Your task to perform on an android device: remove spam from my inbox in the gmail app Image 0: 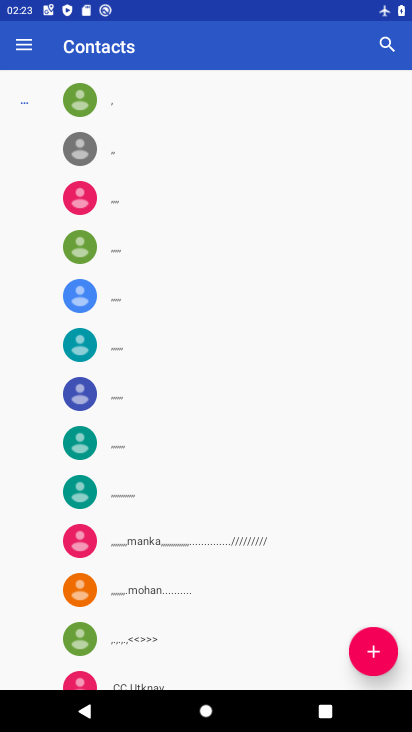
Step 0: press home button
Your task to perform on an android device: remove spam from my inbox in the gmail app Image 1: 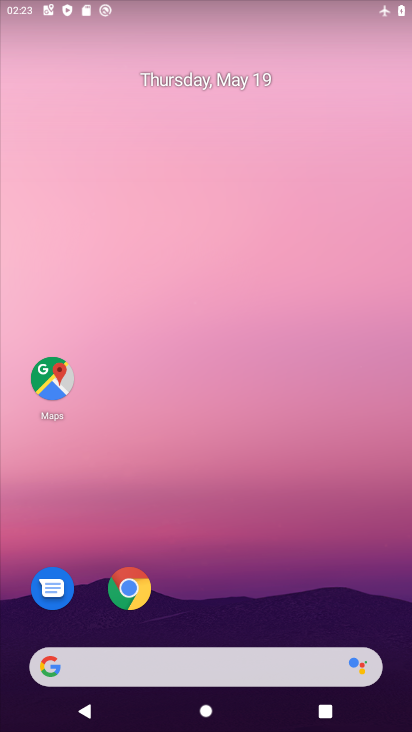
Step 1: drag from (221, 563) to (234, 106)
Your task to perform on an android device: remove spam from my inbox in the gmail app Image 2: 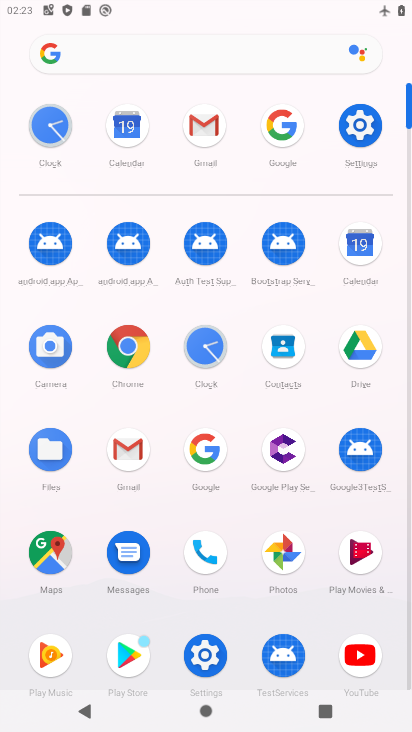
Step 2: click (205, 130)
Your task to perform on an android device: remove spam from my inbox in the gmail app Image 3: 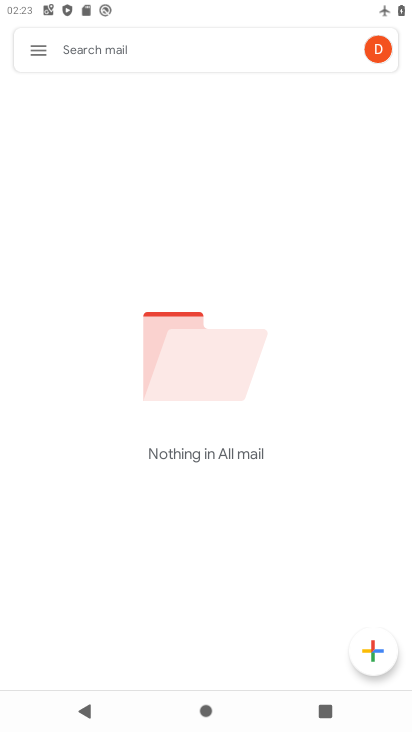
Step 3: task complete